Your task to perform on an android device: open app "Etsy: Buy & Sell Unique Items" (install if not already installed) Image 0: 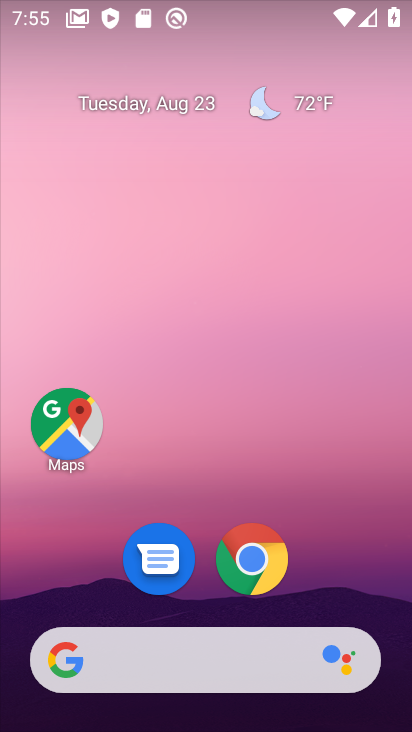
Step 0: drag from (203, 460) to (216, 131)
Your task to perform on an android device: open app "Etsy: Buy & Sell Unique Items" (install if not already installed) Image 1: 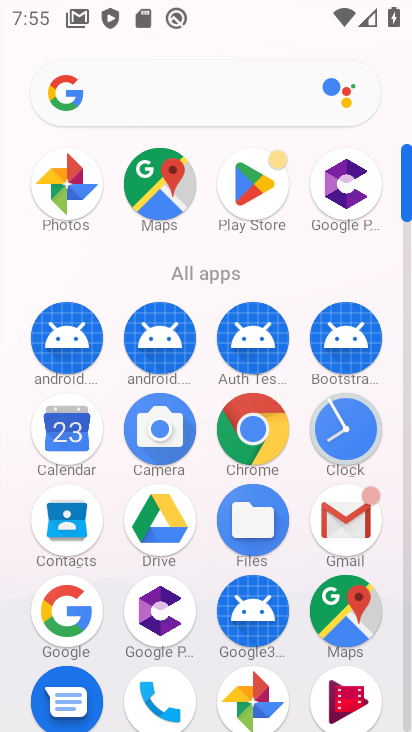
Step 1: click (263, 183)
Your task to perform on an android device: open app "Etsy: Buy & Sell Unique Items" (install if not already installed) Image 2: 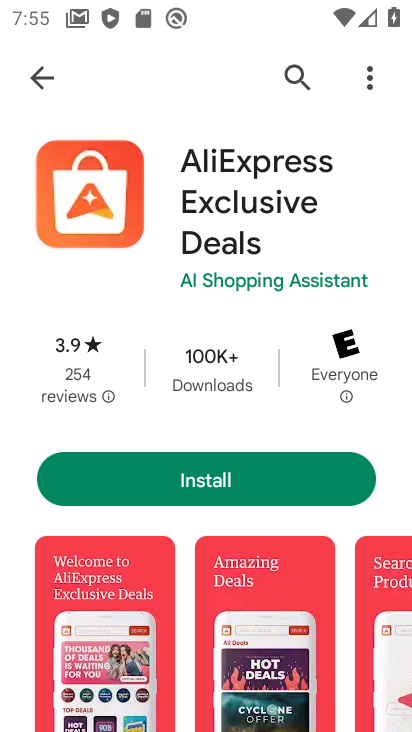
Step 2: click (302, 78)
Your task to perform on an android device: open app "Etsy: Buy & Sell Unique Items" (install if not already installed) Image 3: 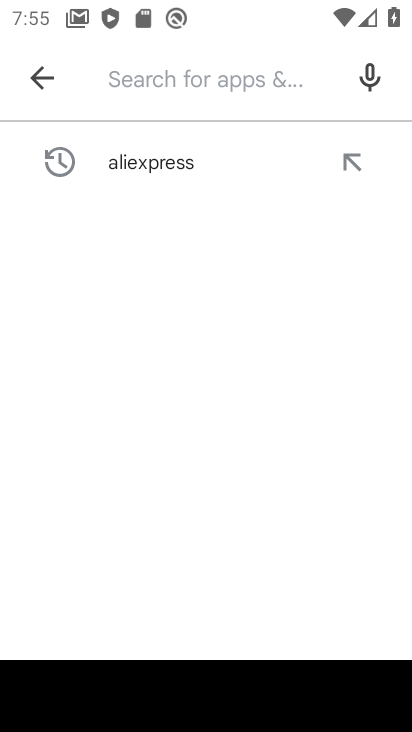
Step 3: type "Etsy: Buy & Sell Unique Items"
Your task to perform on an android device: open app "Etsy: Buy & Sell Unique Items" (install if not already installed) Image 4: 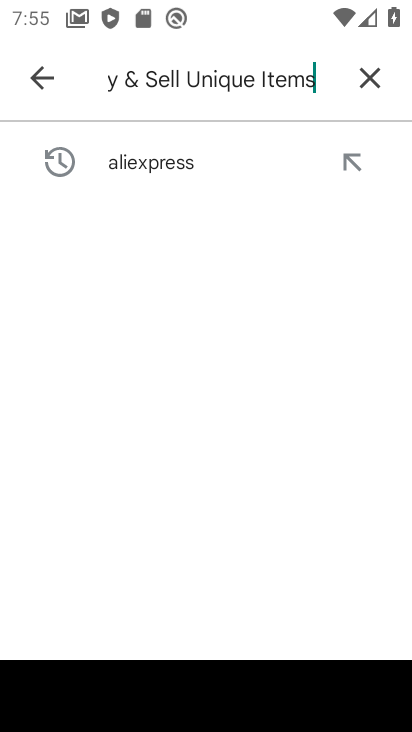
Step 4: type ""
Your task to perform on an android device: open app "Etsy: Buy & Sell Unique Items" (install if not already installed) Image 5: 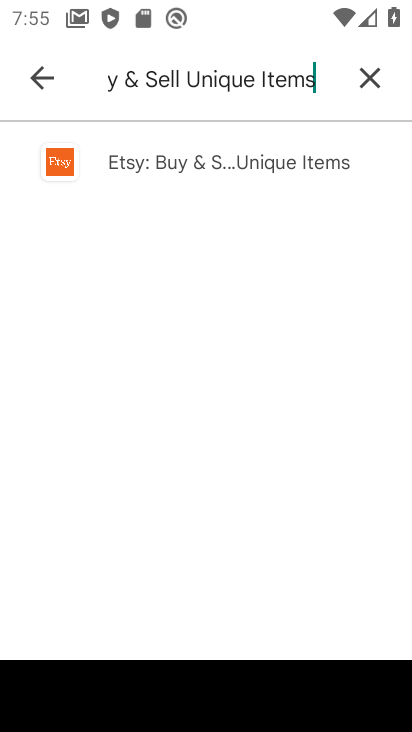
Step 5: click (163, 171)
Your task to perform on an android device: open app "Etsy: Buy & Sell Unique Items" (install if not already installed) Image 6: 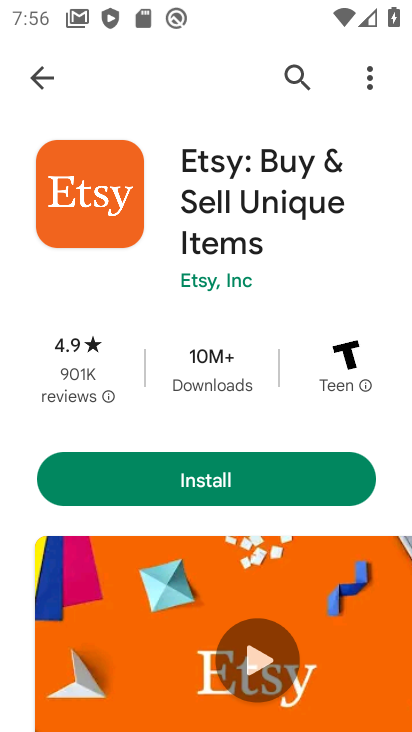
Step 6: click (131, 483)
Your task to perform on an android device: open app "Etsy: Buy & Sell Unique Items" (install if not already installed) Image 7: 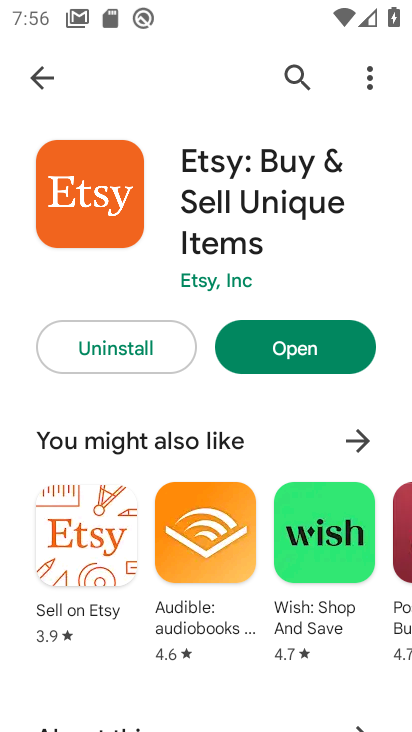
Step 7: click (310, 349)
Your task to perform on an android device: open app "Etsy: Buy & Sell Unique Items" (install if not already installed) Image 8: 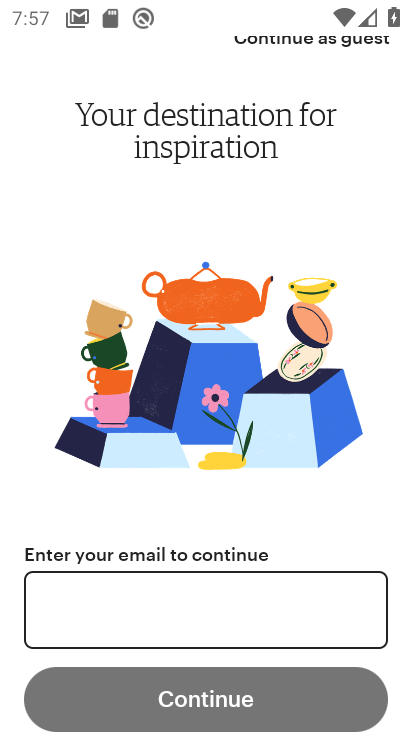
Step 8: task complete